Your task to perform on an android device: open app "Reddit" (install if not already installed) Image 0: 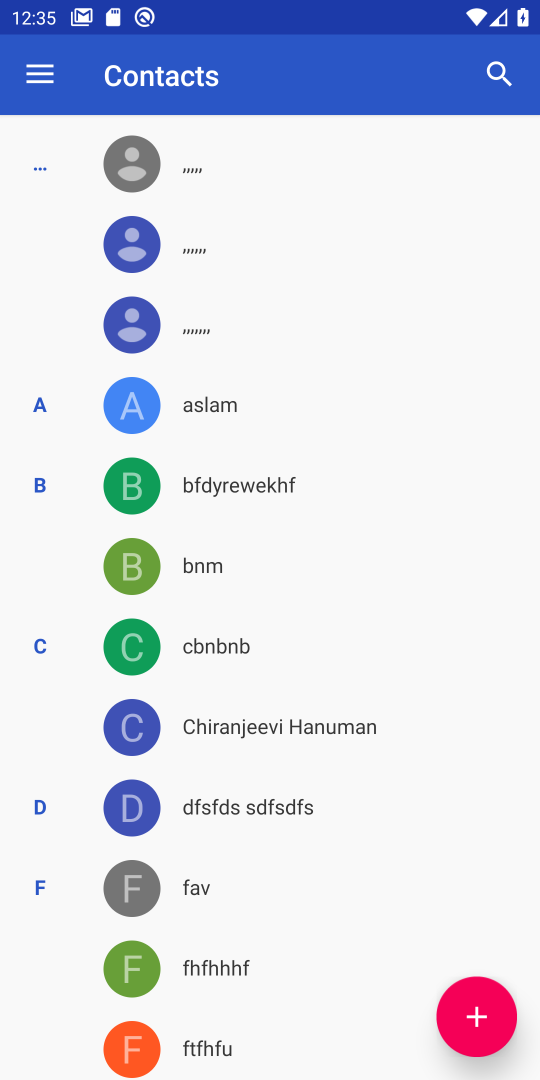
Step 0: press back button
Your task to perform on an android device: open app "Reddit" (install if not already installed) Image 1: 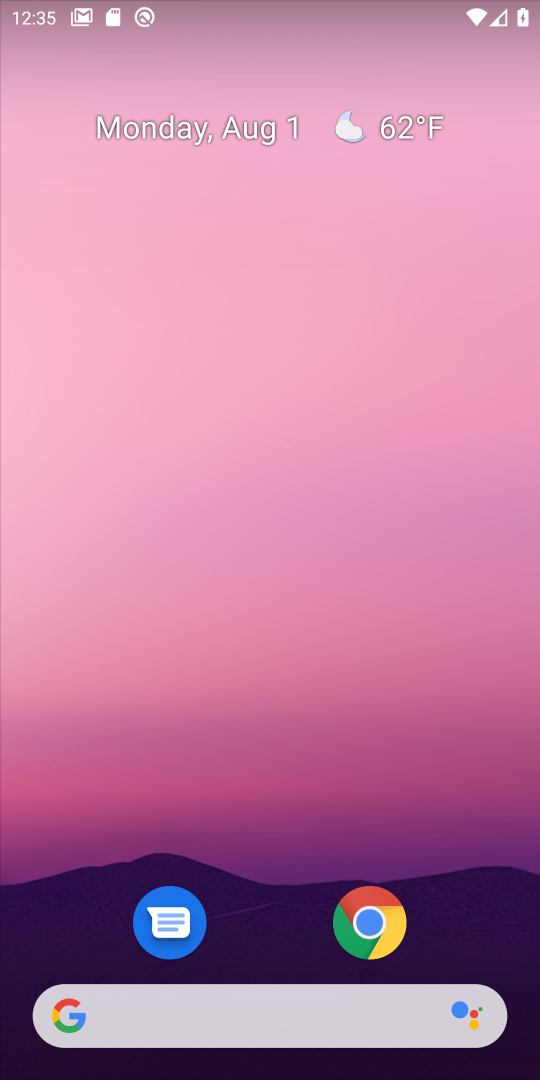
Step 1: drag from (289, 832) to (295, 92)
Your task to perform on an android device: open app "Reddit" (install if not already installed) Image 2: 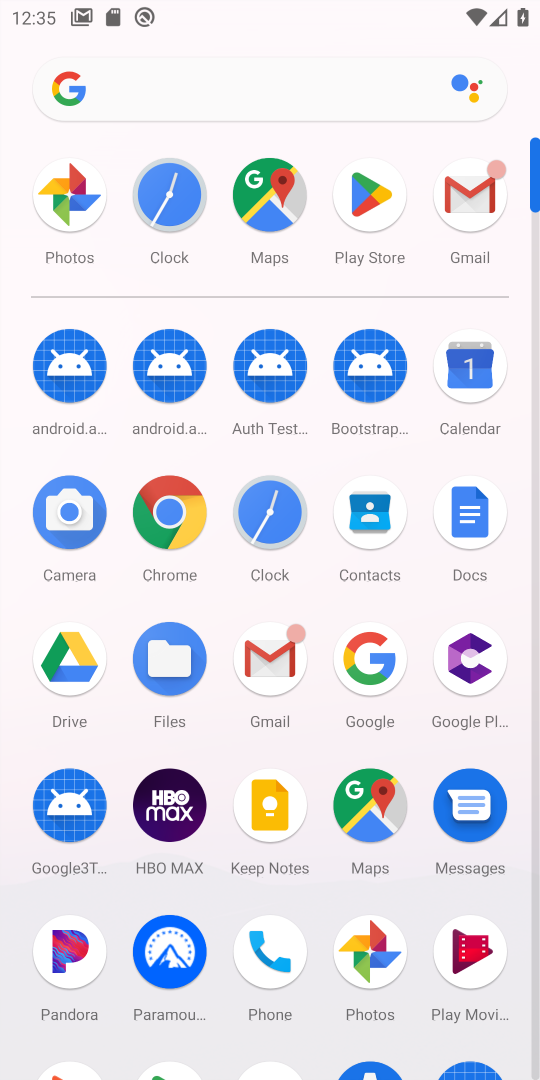
Step 2: click (367, 201)
Your task to perform on an android device: open app "Reddit" (install if not already installed) Image 3: 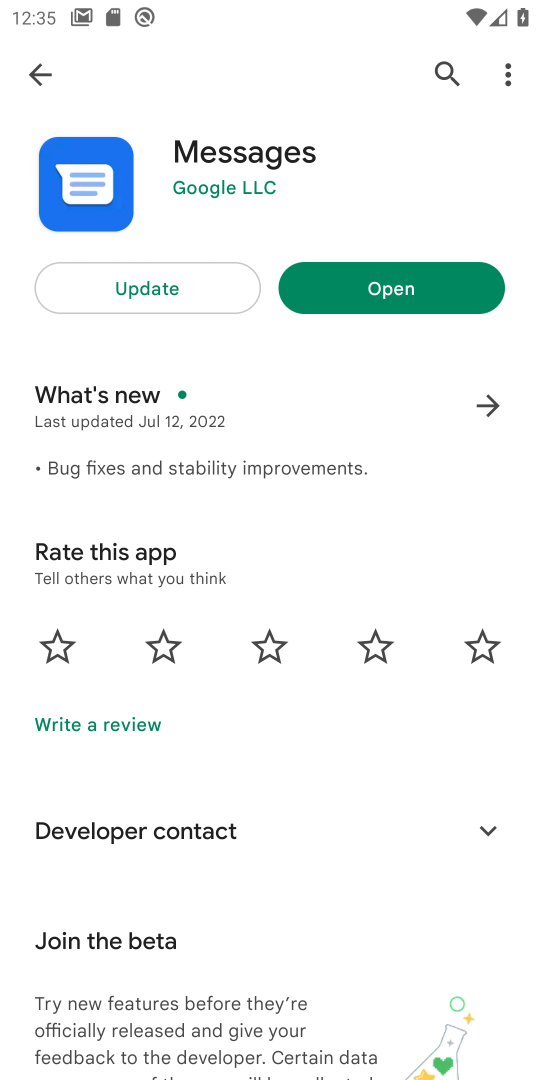
Step 3: click (452, 67)
Your task to perform on an android device: open app "Reddit" (install if not already installed) Image 4: 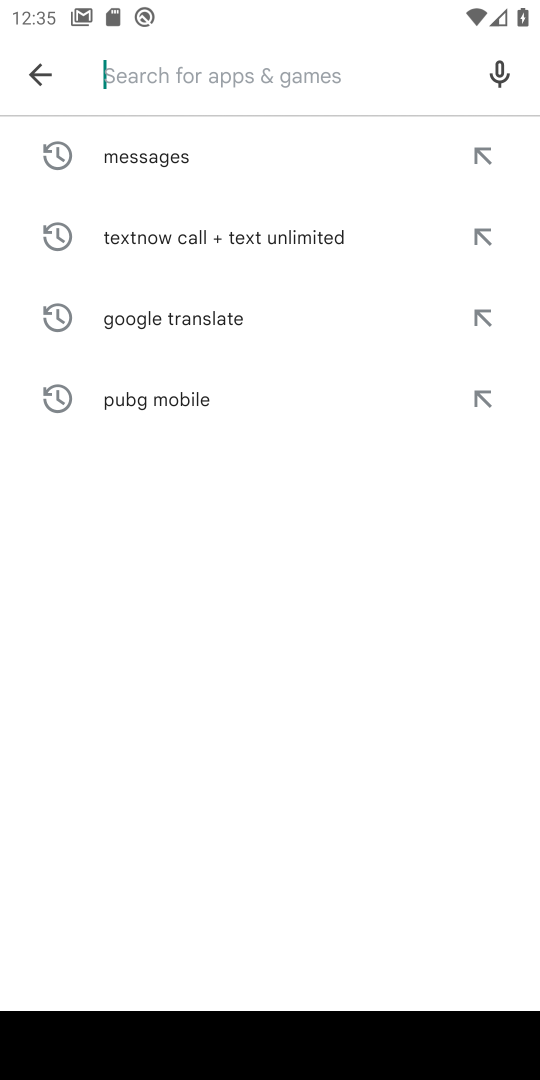
Step 4: type "Reddit"
Your task to perform on an android device: open app "Reddit" (install if not already installed) Image 5: 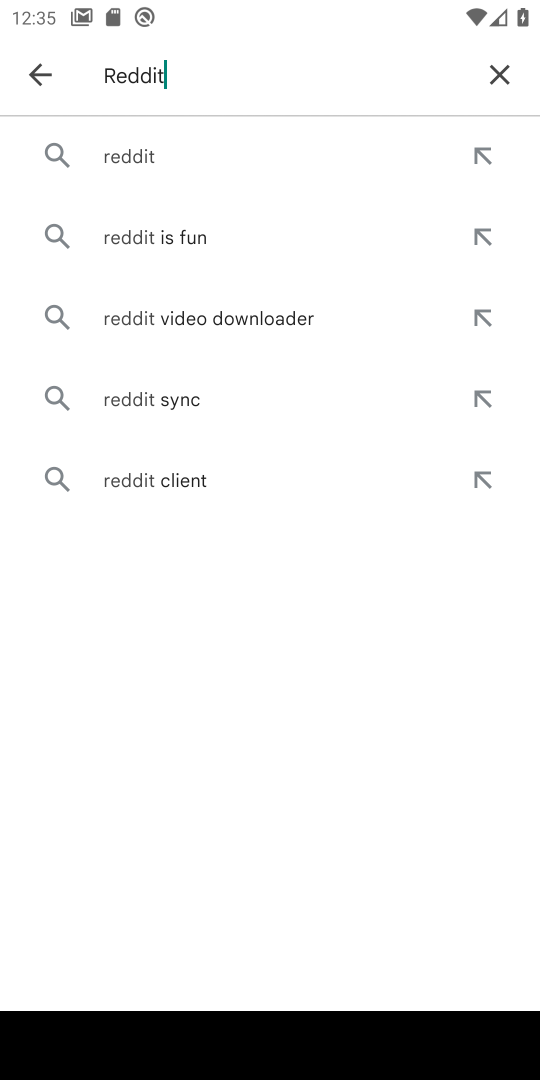
Step 5: click (177, 159)
Your task to perform on an android device: open app "Reddit" (install if not already installed) Image 6: 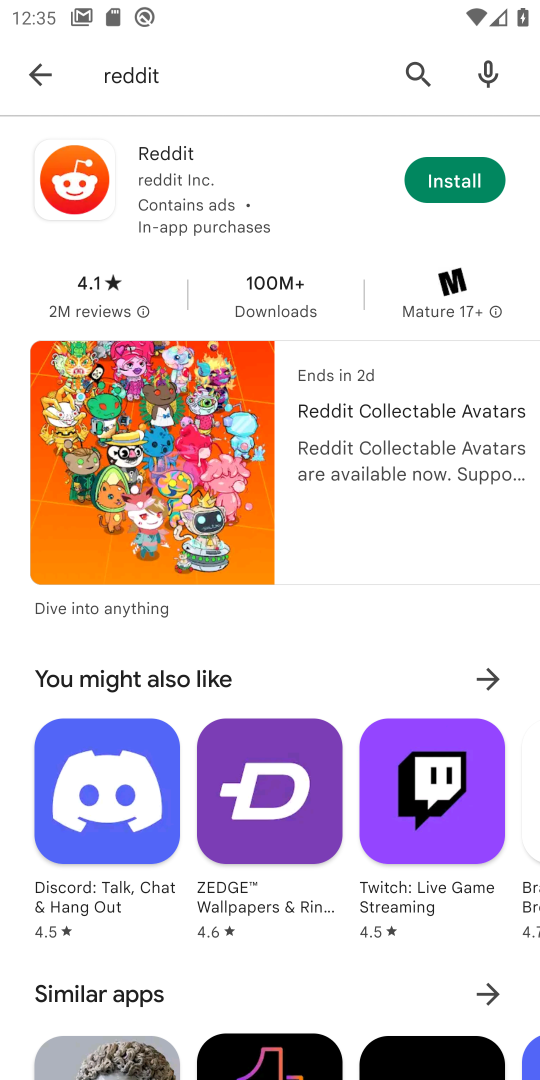
Step 6: click (438, 184)
Your task to perform on an android device: open app "Reddit" (install if not already installed) Image 7: 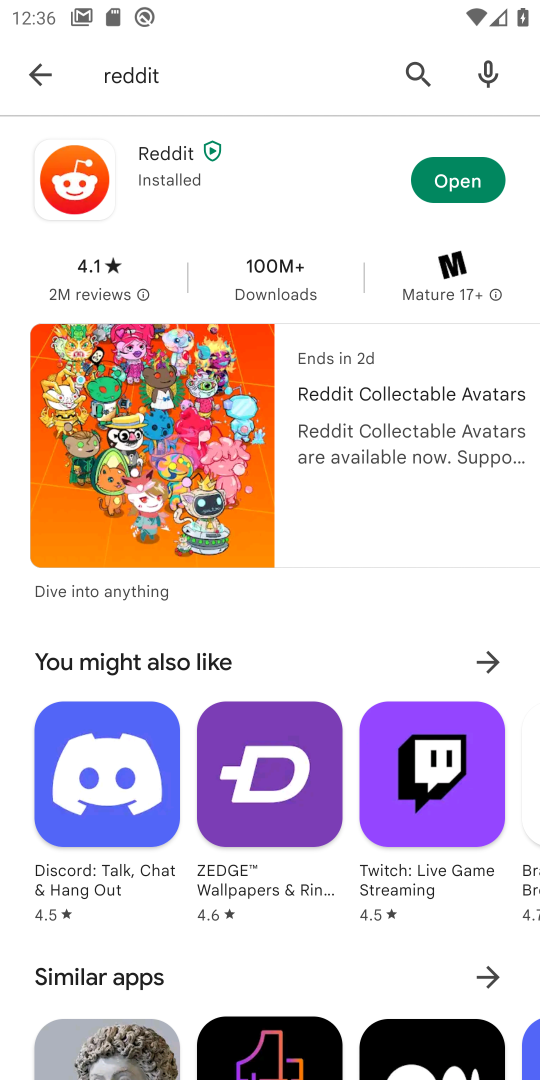
Step 7: click (440, 184)
Your task to perform on an android device: open app "Reddit" (install if not already installed) Image 8: 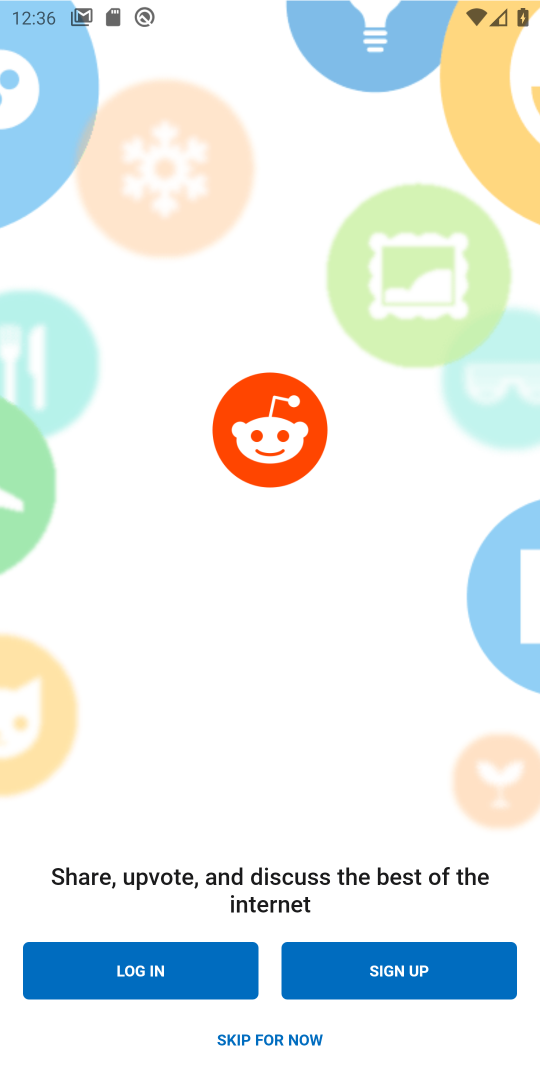
Step 8: task complete